Your task to perform on an android device: show emergency info Image 0: 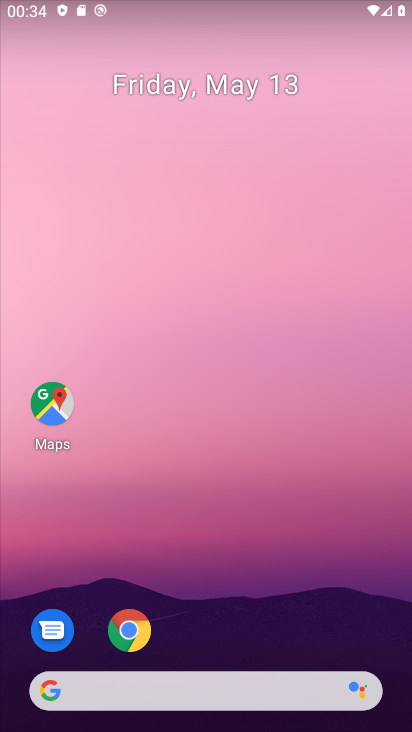
Step 0: drag from (248, 707) to (274, 243)
Your task to perform on an android device: show emergency info Image 1: 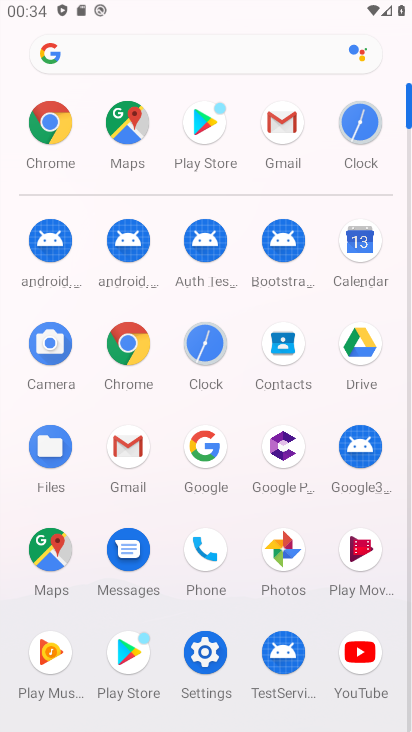
Step 1: click (200, 655)
Your task to perform on an android device: show emergency info Image 2: 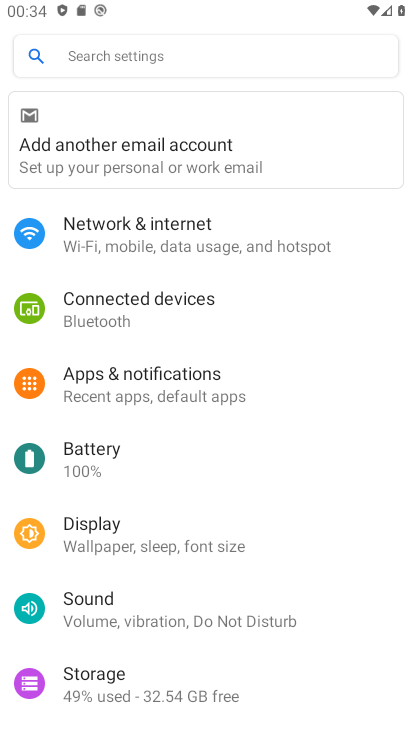
Step 2: click (146, 58)
Your task to perform on an android device: show emergency info Image 3: 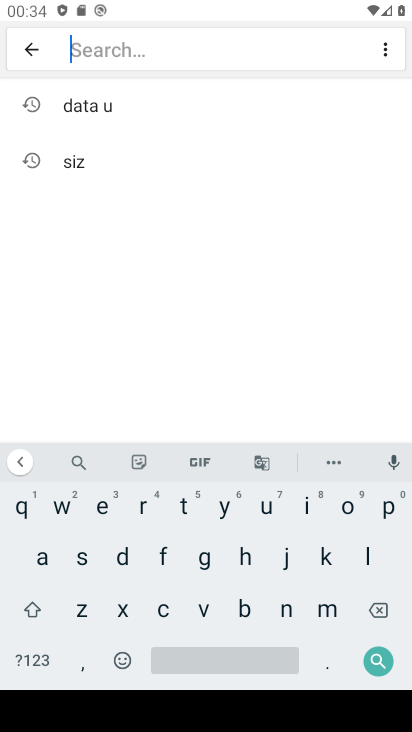
Step 3: click (102, 502)
Your task to perform on an android device: show emergency info Image 4: 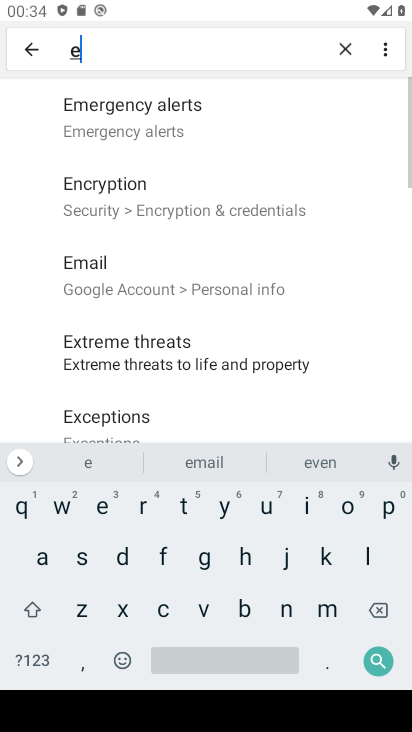
Step 4: click (327, 607)
Your task to perform on an android device: show emergency info Image 5: 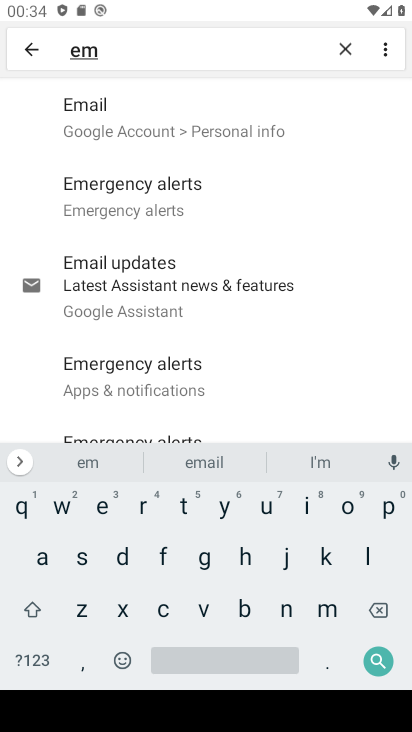
Step 5: click (100, 515)
Your task to perform on an android device: show emergency info Image 6: 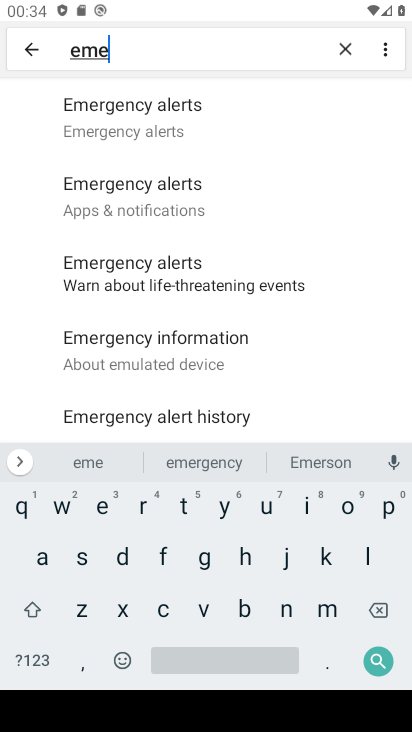
Step 6: click (141, 506)
Your task to perform on an android device: show emergency info Image 7: 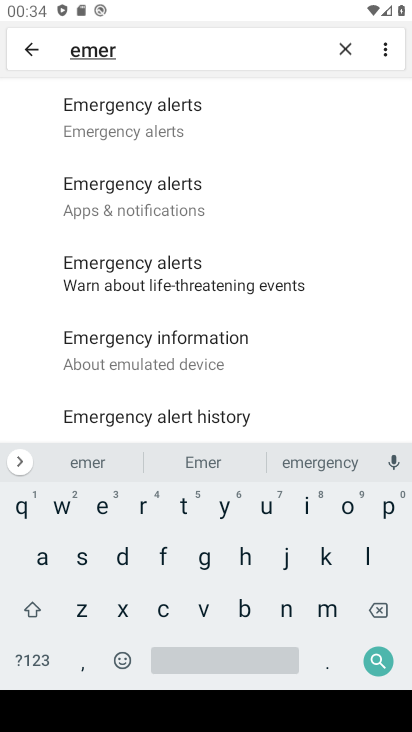
Step 7: click (316, 469)
Your task to perform on an android device: show emergency info Image 8: 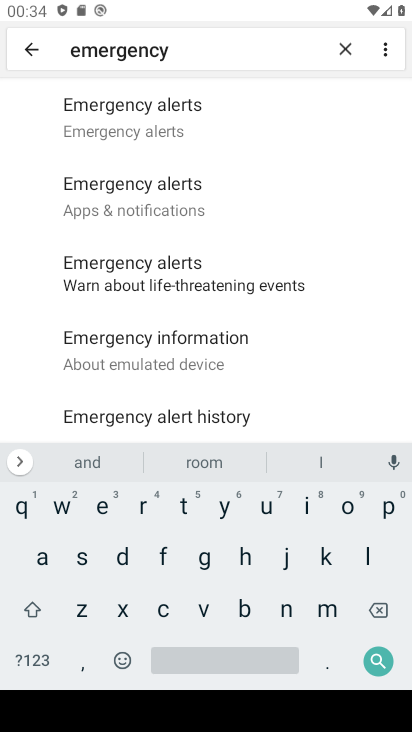
Step 8: click (302, 508)
Your task to perform on an android device: show emergency info Image 9: 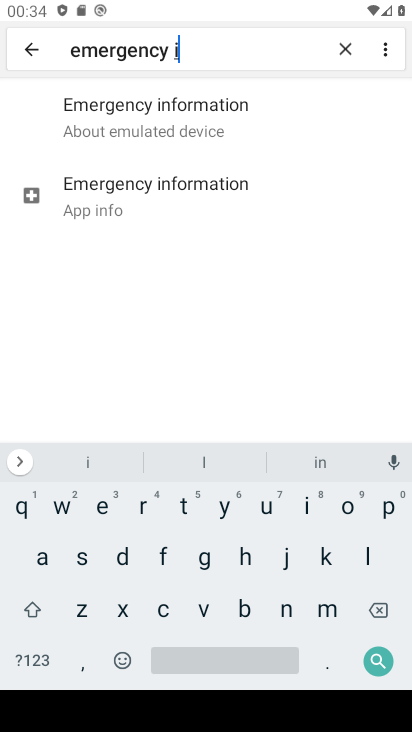
Step 9: click (192, 120)
Your task to perform on an android device: show emergency info Image 10: 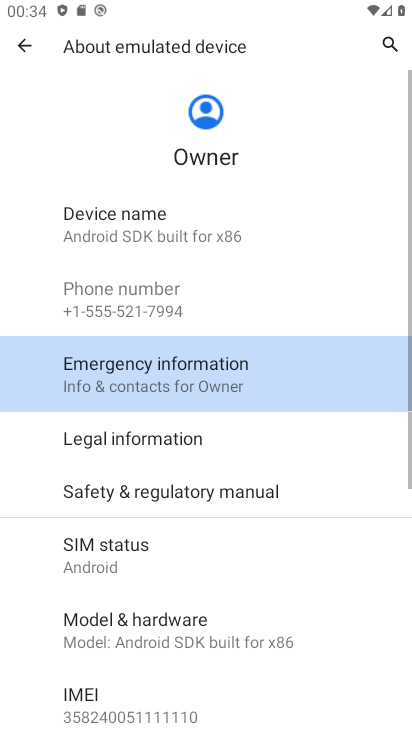
Step 10: click (108, 357)
Your task to perform on an android device: show emergency info Image 11: 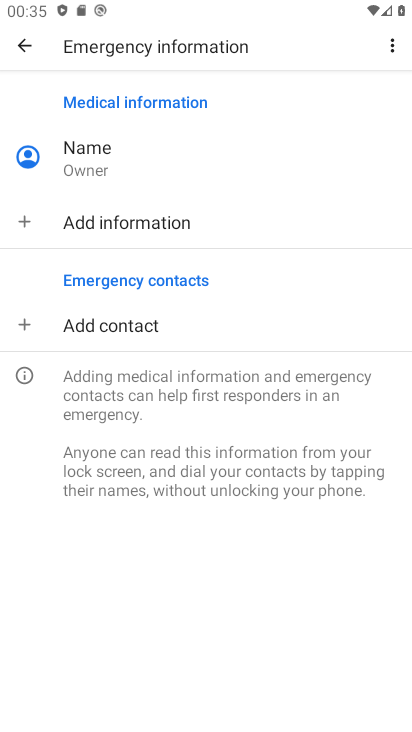
Step 11: task complete